Your task to perform on an android device: toggle airplane mode Image 0: 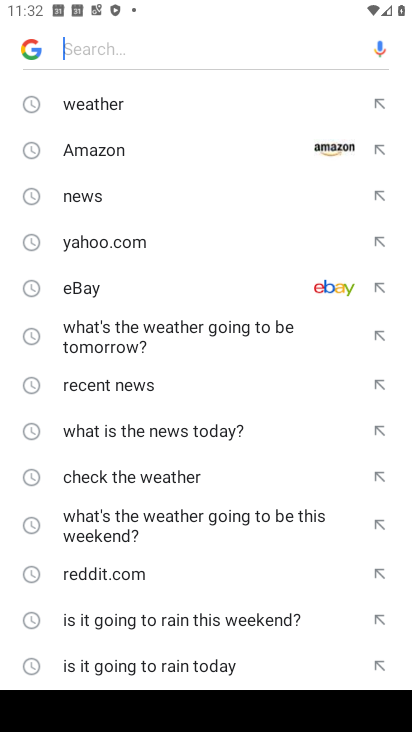
Step 0: press home button
Your task to perform on an android device: toggle airplane mode Image 1: 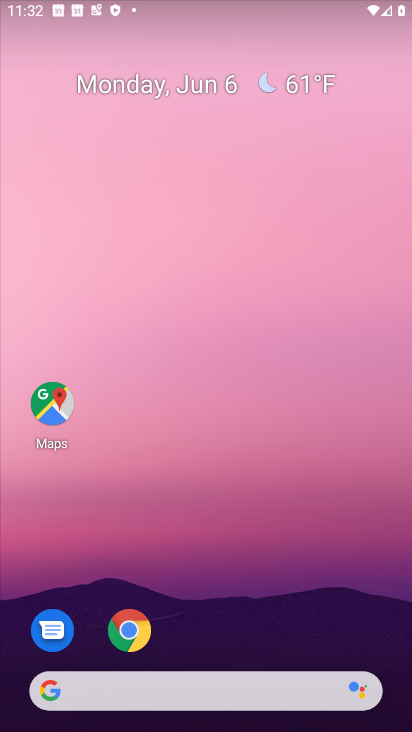
Step 1: drag from (375, 611) to (311, 197)
Your task to perform on an android device: toggle airplane mode Image 2: 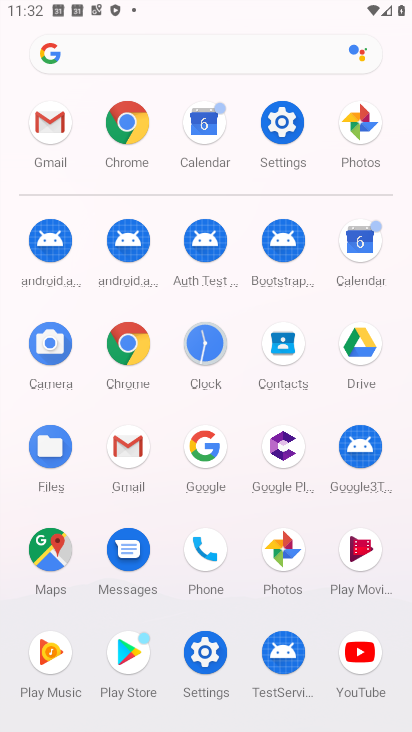
Step 2: click (302, 139)
Your task to perform on an android device: toggle airplane mode Image 3: 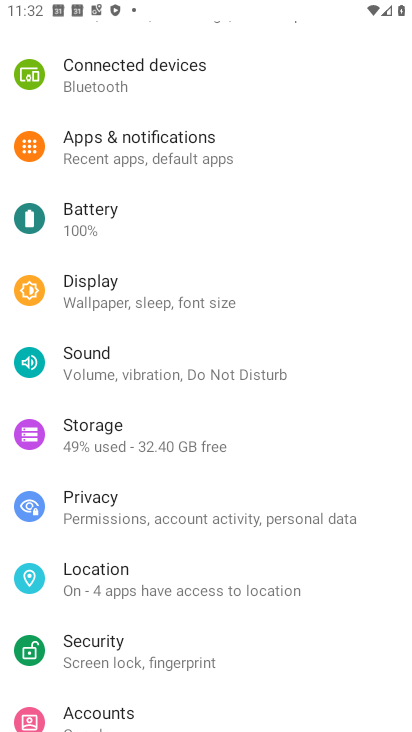
Step 3: drag from (268, 177) to (236, 522)
Your task to perform on an android device: toggle airplane mode Image 4: 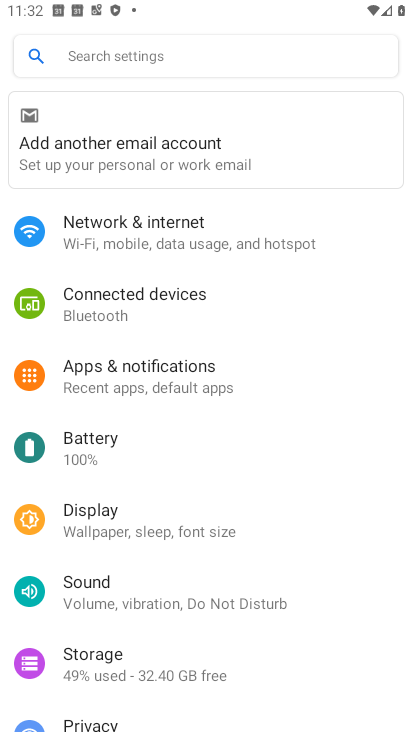
Step 4: click (170, 249)
Your task to perform on an android device: toggle airplane mode Image 5: 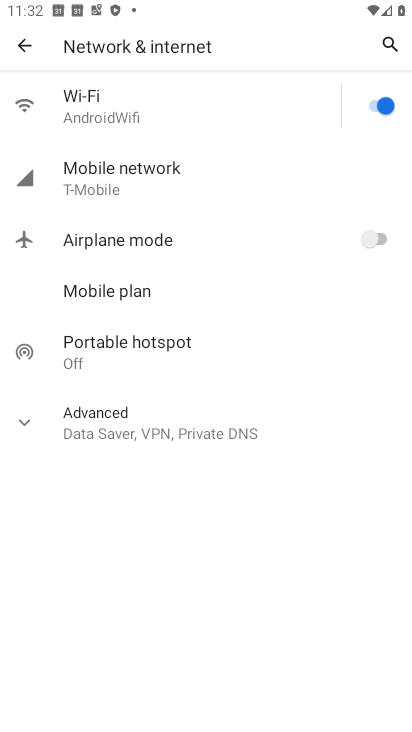
Step 5: click (395, 238)
Your task to perform on an android device: toggle airplane mode Image 6: 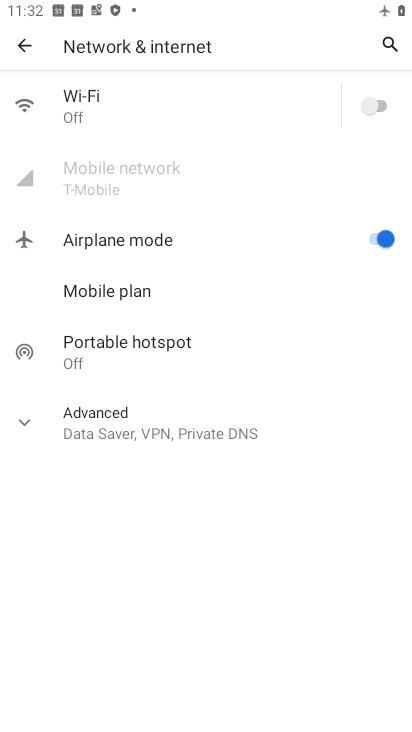
Step 6: task complete